Your task to perform on an android device: See recent photos Image 0: 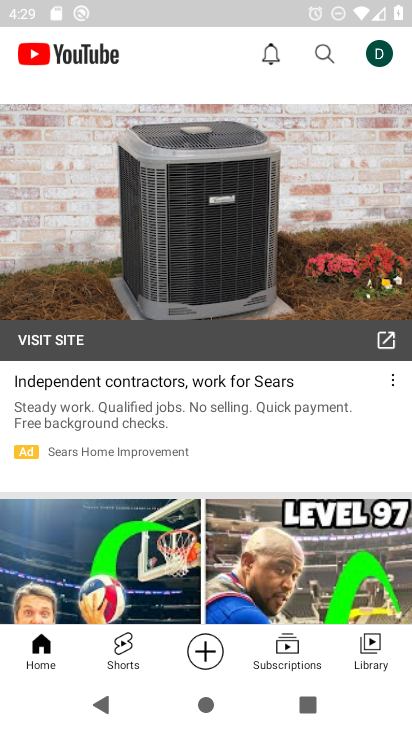
Step 0: press home button
Your task to perform on an android device: See recent photos Image 1: 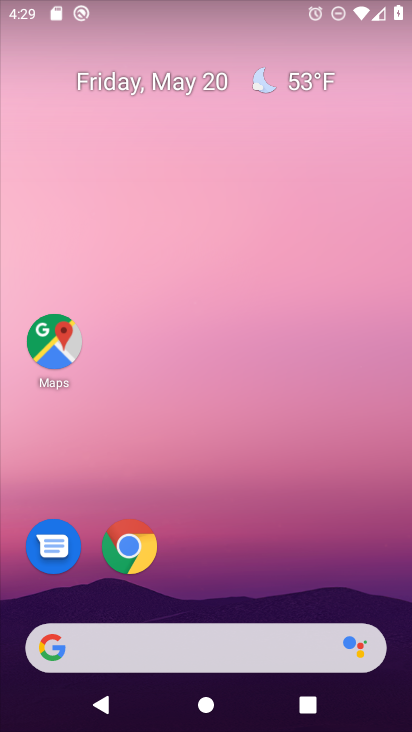
Step 1: drag from (187, 574) to (230, 172)
Your task to perform on an android device: See recent photos Image 2: 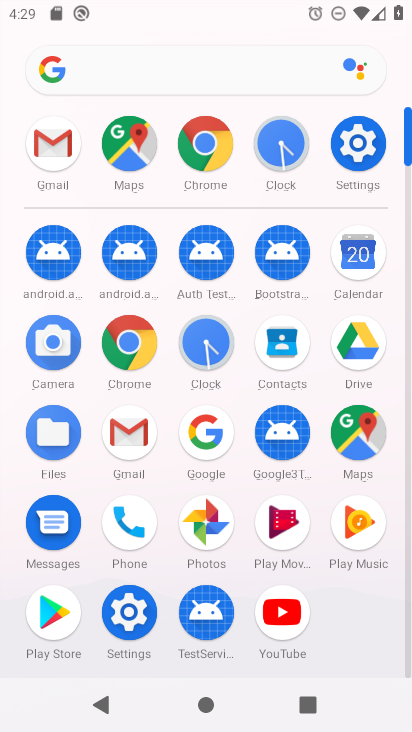
Step 2: click (213, 506)
Your task to perform on an android device: See recent photos Image 3: 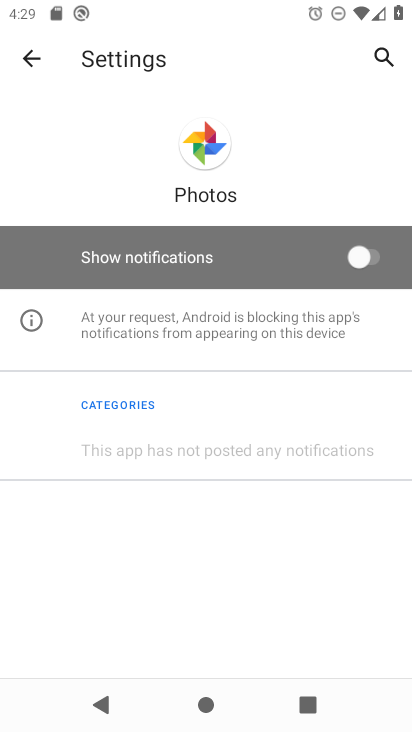
Step 3: click (61, 59)
Your task to perform on an android device: See recent photos Image 4: 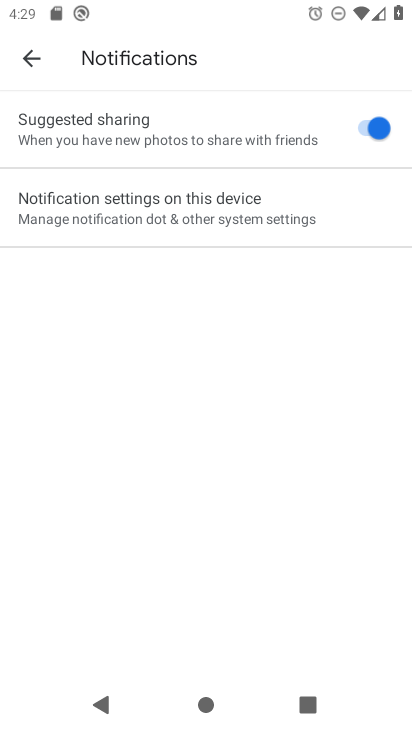
Step 4: click (61, 59)
Your task to perform on an android device: See recent photos Image 5: 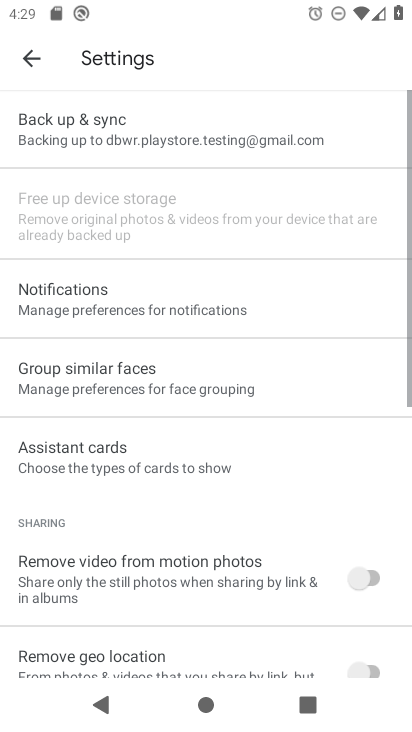
Step 5: click (61, 59)
Your task to perform on an android device: See recent photos Image 6: 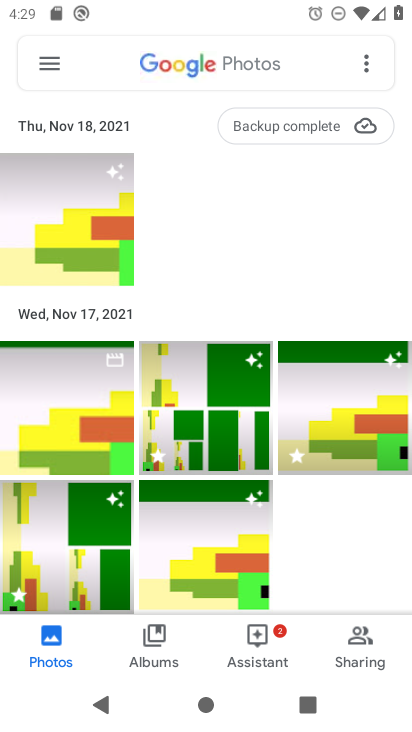
Step 6: click (42, 62)
Your task to perform on an android device: See recent photos Image 7: 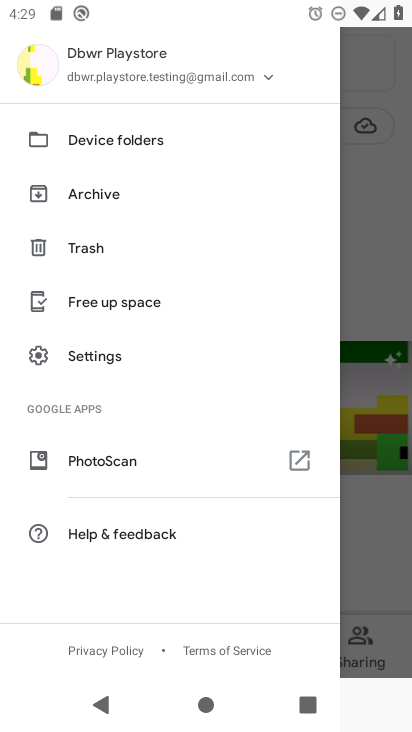
Step 7: drag from (94, 490) to (155, 443)
Your task to perform on an android device: See recent photos Image 8: 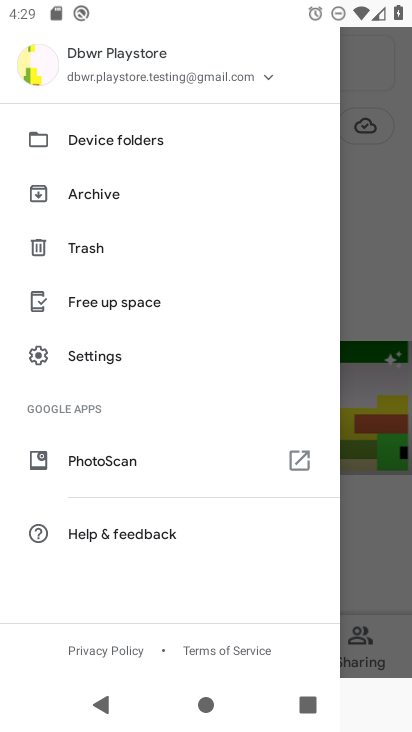
Step 8: click (406, 261)
Your task to perform on an android device: See recent photos Image 9: 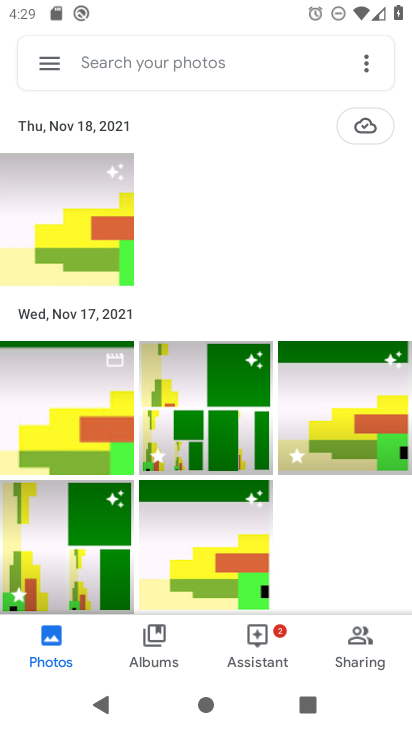
Step 9: task complete